Your task to perform on an android device: Open Yahoo.com Image 0: 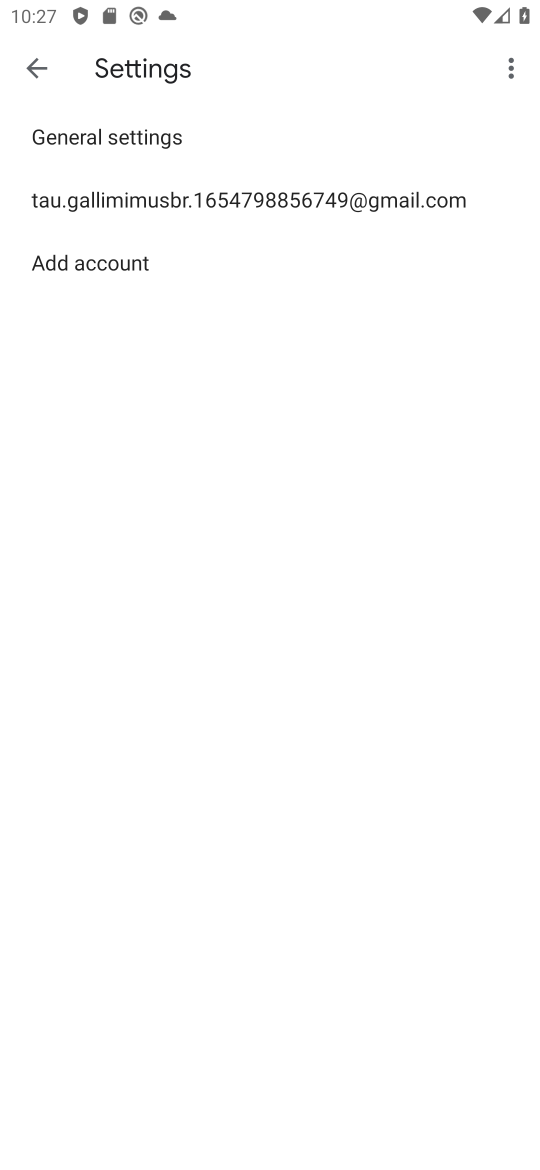
Step 0: press home button
Your task to perform on an android device: Open Yahoo.com Image 1: 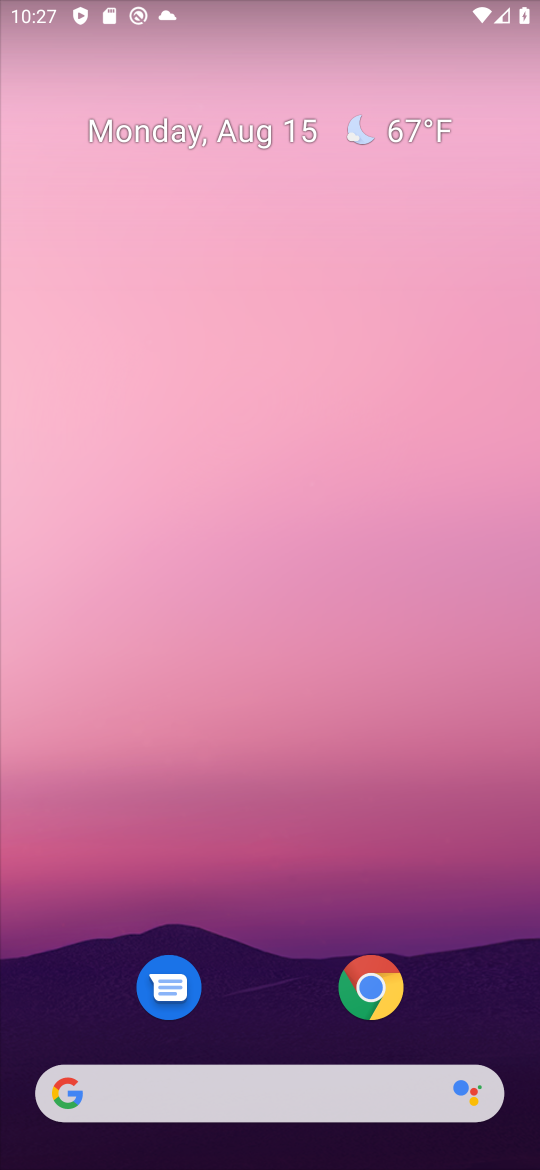
Step 1: click (364, 1000)
Your task to perform on an android device: Open Yahoo.com Image 2: 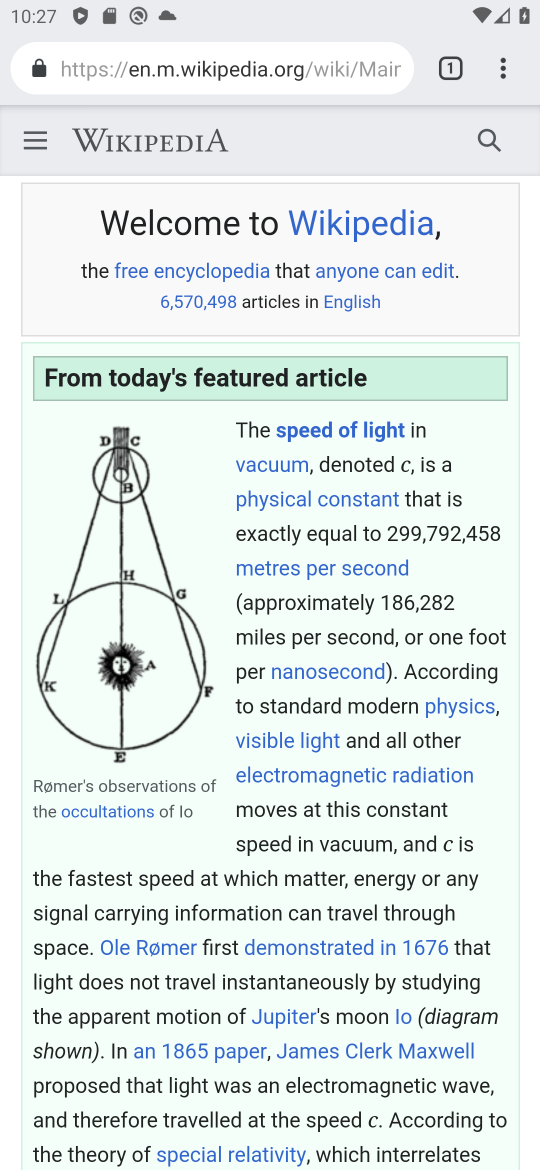
Step 2: click (434, 66)
Your task to perform on an android device: Open Yahoo.com Image 3: 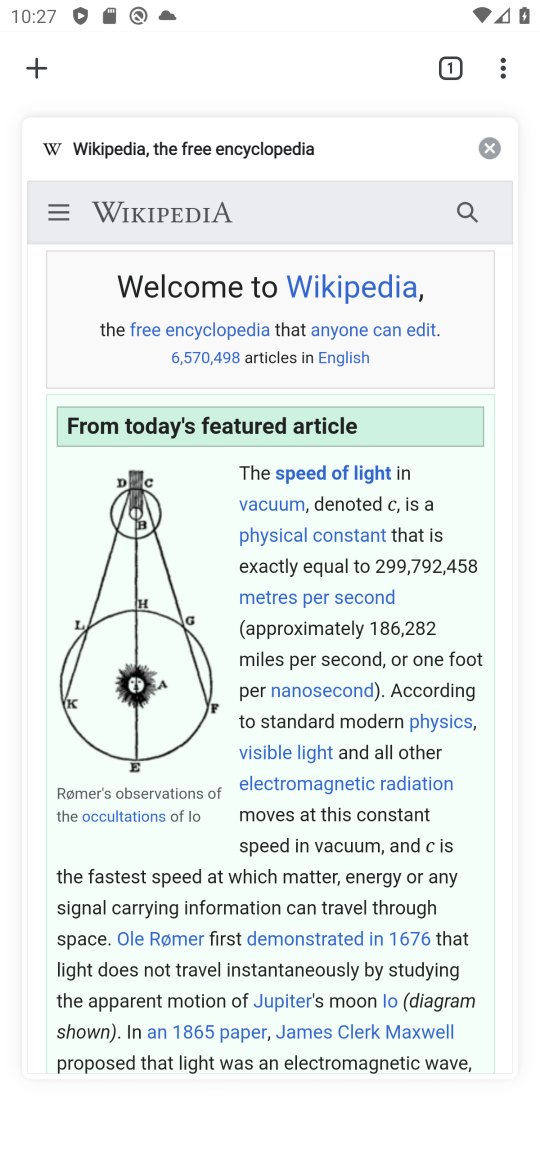
Step 3: click (33, 69)
Your task to perform on an android device: Open Yahoo.com Image 4: 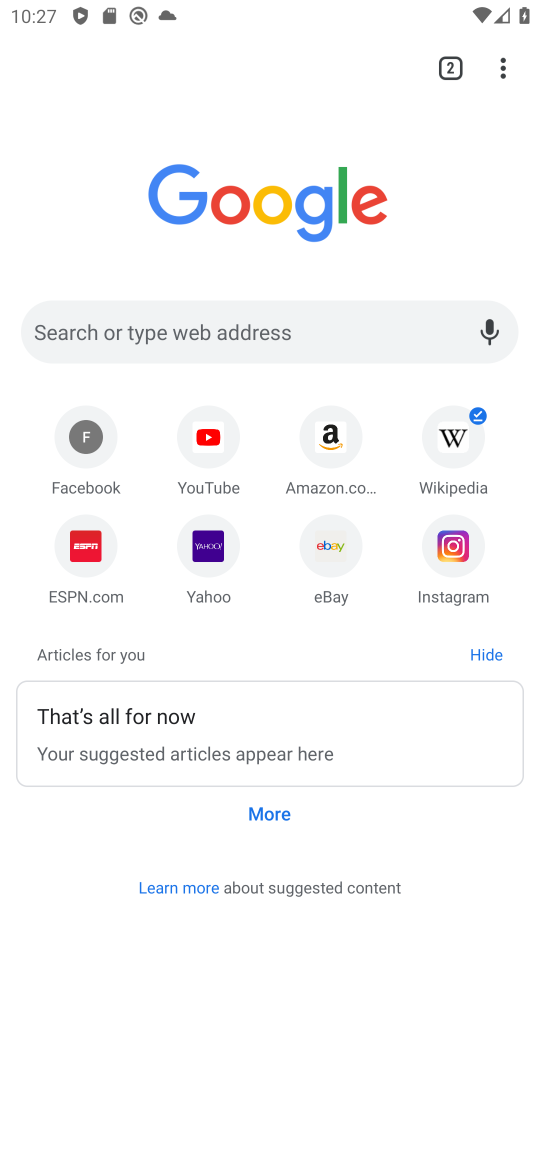
Step 4: click (206, 541)
Your task to perform on an android device: Open Yahoo.com Image 5: 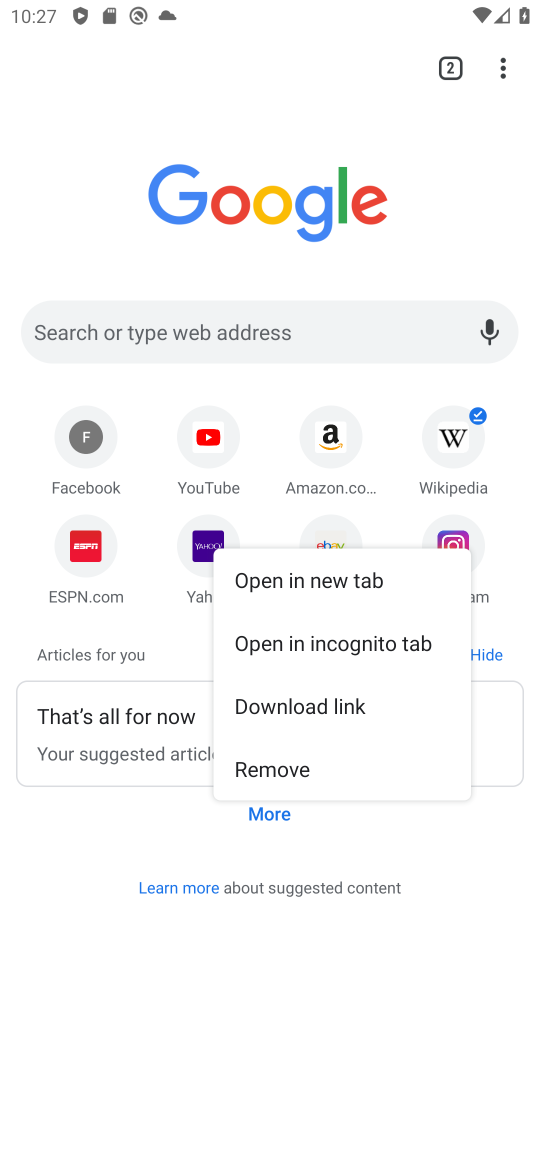
Step 5: click (206, 541)
Your task to perform on an android device: Open Yahoo.com Image 6: 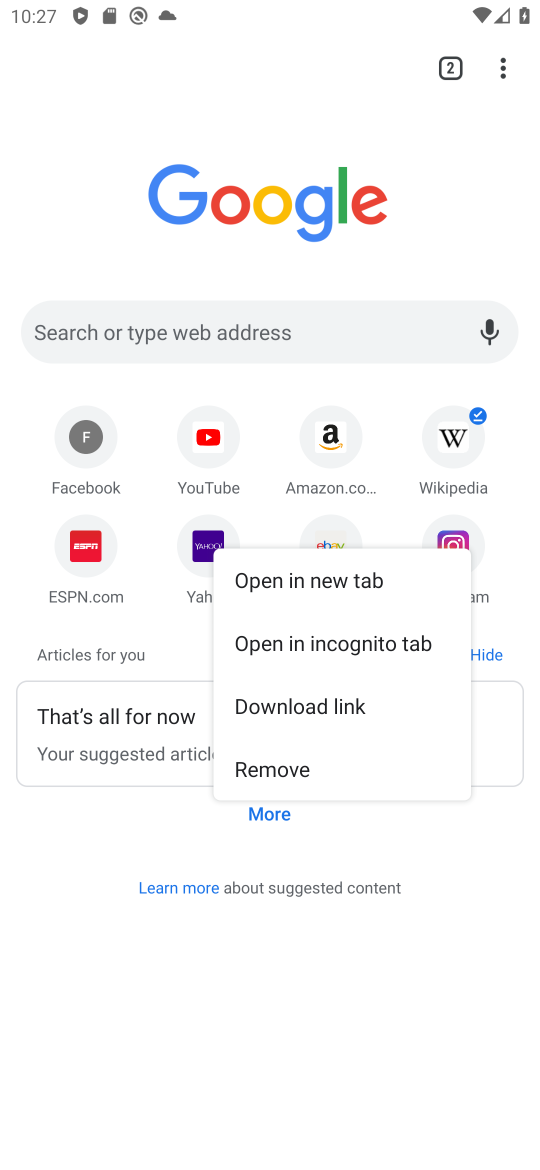
Step 6: click (208, 516)
Your task to perform on an android device: Open Yahoo.com Image 7: 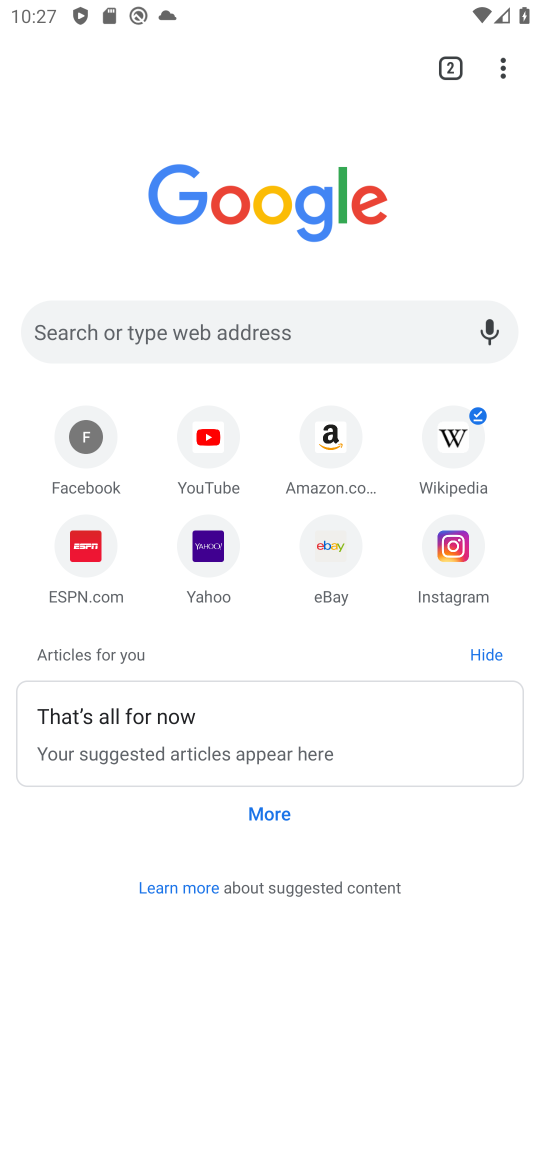
Step 7: click (197, 548)
Your task to perform on an android device: Open Yahoo.com Image 8: 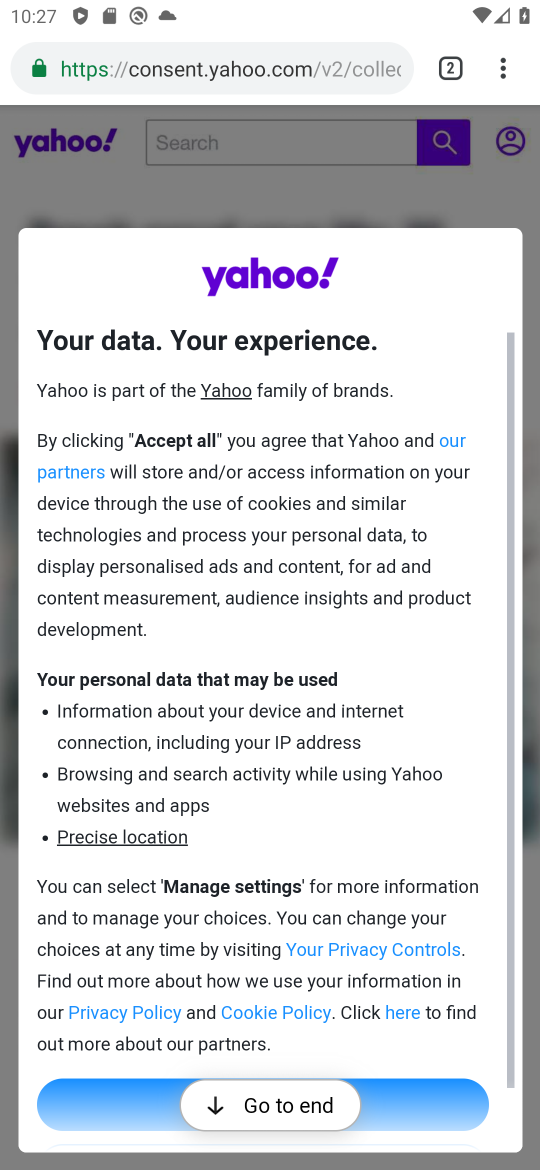
Step 8: click (299, 1113)
Your task to perform on an android device: Open Yahoo.com Image 9: 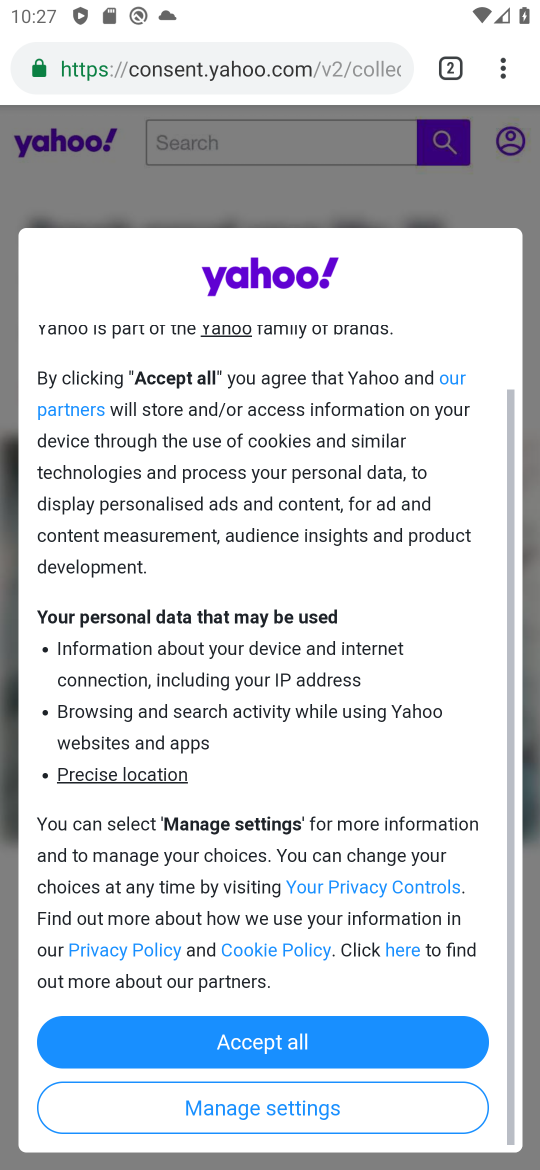
Step 9: task complete